Your task to perform on an android device: Search for the new iphone 13 pro on Etsy. Image 0: 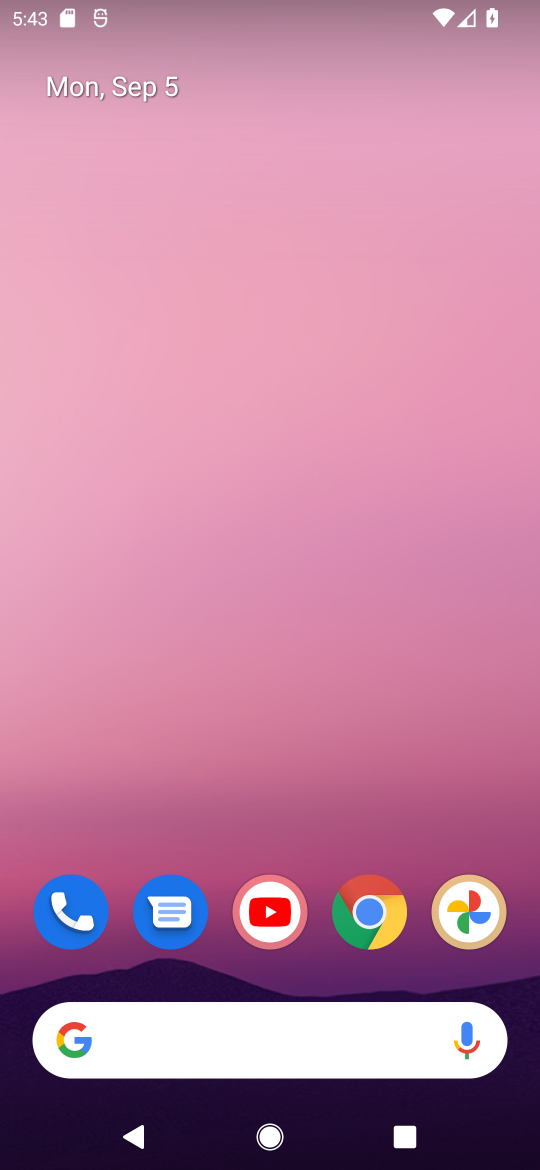
Step 0: click (369, 916)
Your task to perform on an android device: Search for the new iphone 13 pro on Etsy. Image 1: 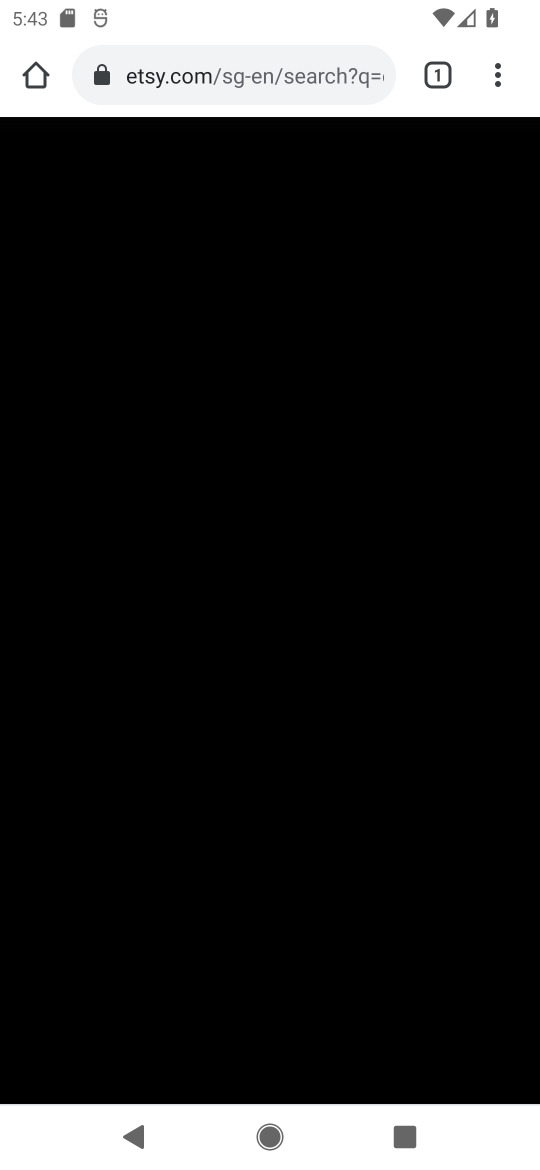
Step 1: click (288, 69)
Your task to perform on an android device: Search for the new iphone 13 pro on Etsy. Image 2: 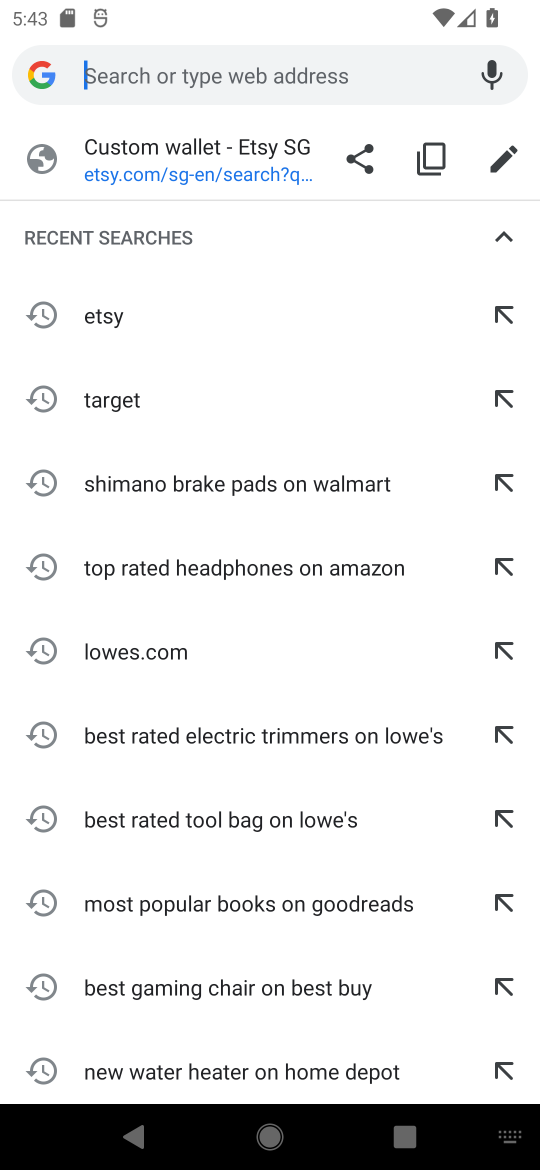
Step 2: press back button
Your task to perform on an android device: Search for the new iphone 13 pro on Etsy. Image 3: 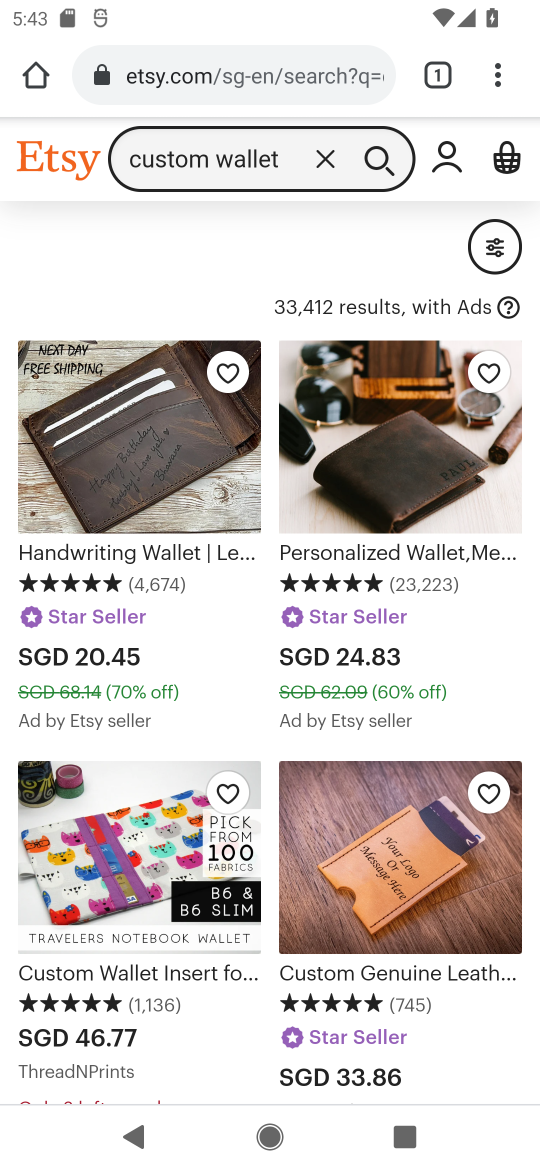
Step 3: click (324, 151)
Your task to perform on an android device: Search for the new iphone 13 pro on Etsy. Image 4: 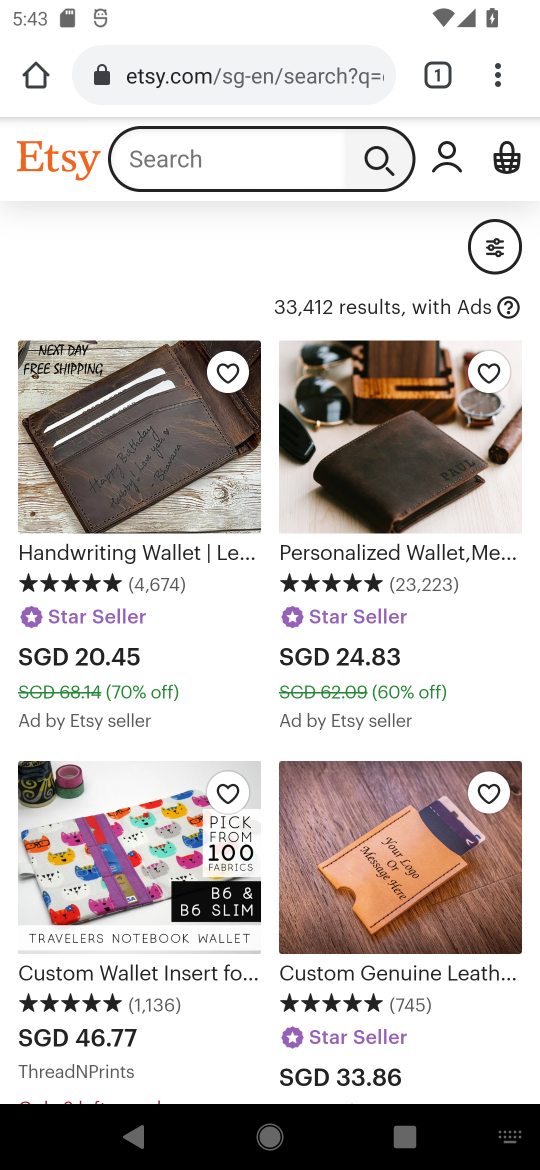
Step 4: click (264, 159)
Your task to perform on an android device: Search for the new iphone 13 pro on Etsy. Image 5: 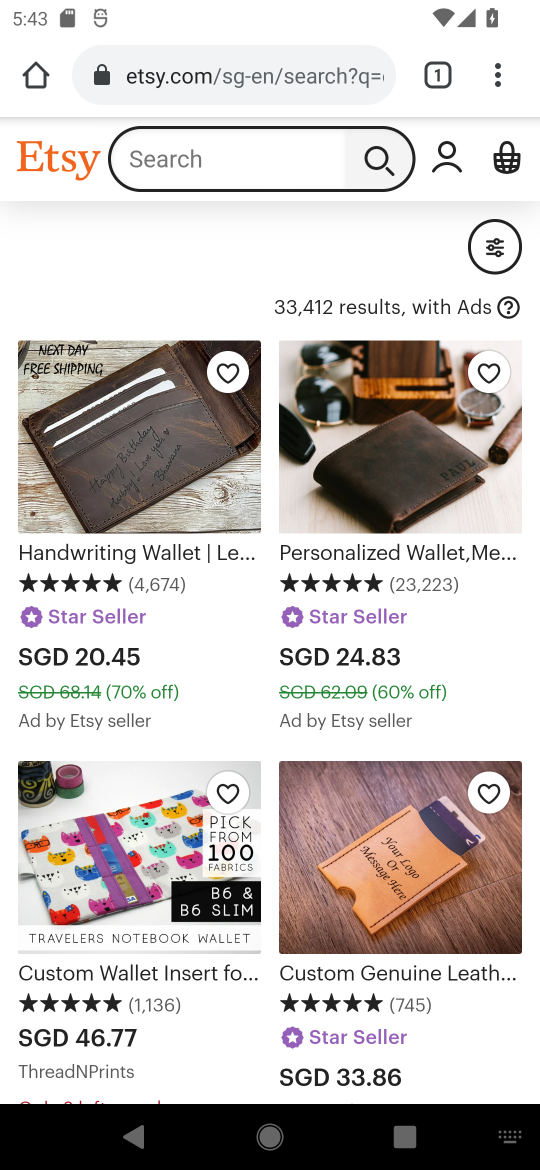
Step 5: type "the new iphone 13 pro"
Your task to perform on an android device: Search for the new iphone 13 pro on Etsy. Image 6: 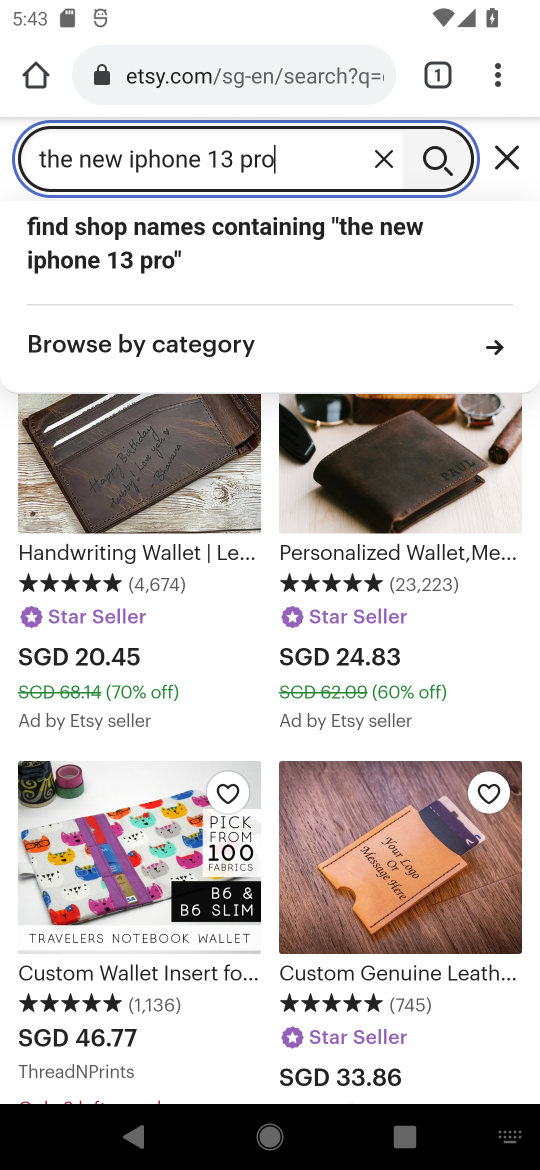
Step 6: click (425, 152)
Your task to perform on an android device: Search for the new iphone 13 pro on Etsy. Image 7: 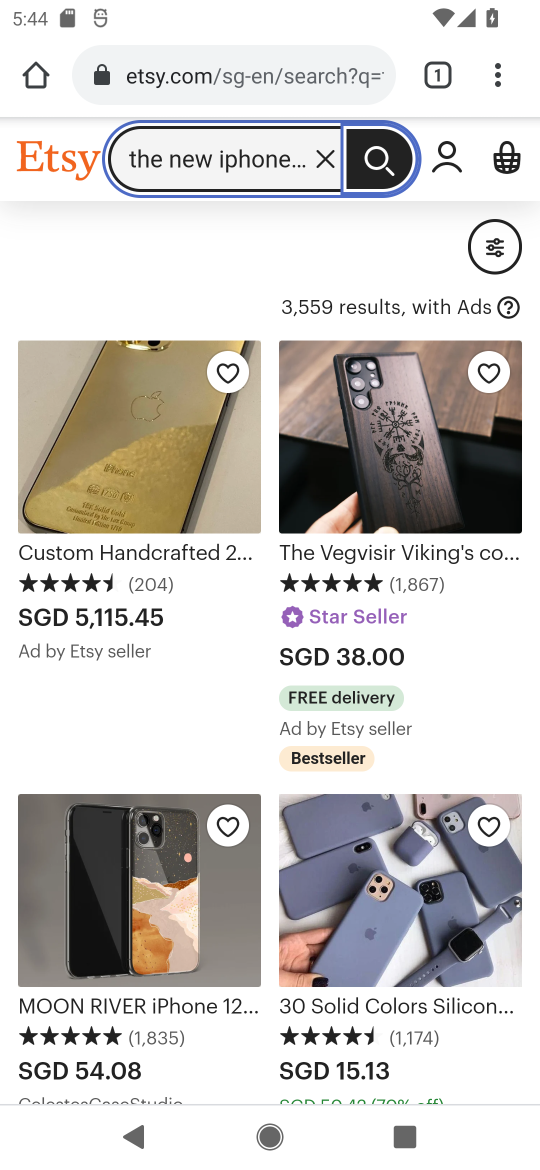
Step 7: task complete